Your task to perform on an android device: What's the weather? Image 0: 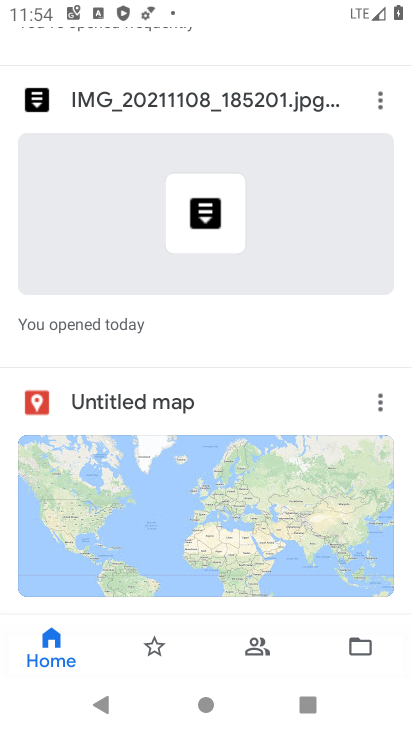
Step 0: press home button
Your task to perform on an android device: What's the weather? Image 1: 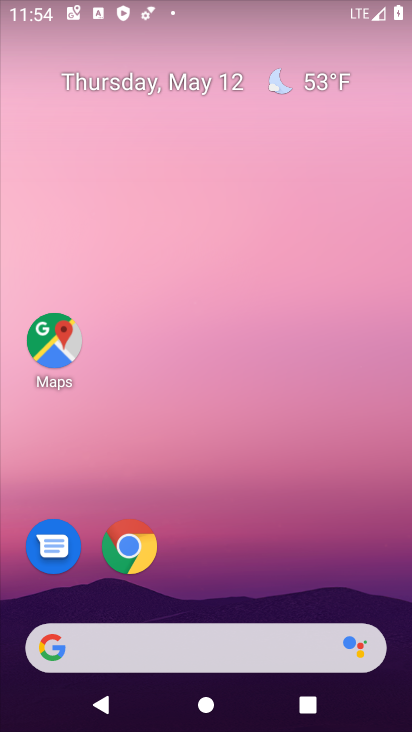
Step 1: drag from (238, 688) to (209, 253)
Your task to perform on an android device: What's the weather? Image 2: 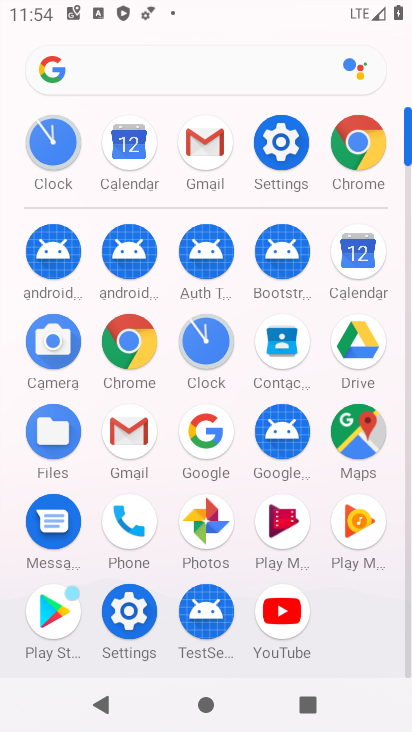
Step 2: click (145, 73)
Your task to perform on an android device: What's the weather? Image 3: 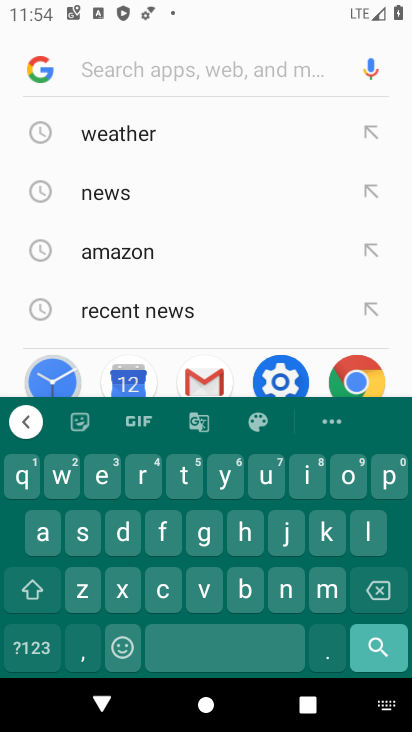
Step 3: click (120, 133)
Your task to perform on an android device: What's the weather? Image 4: 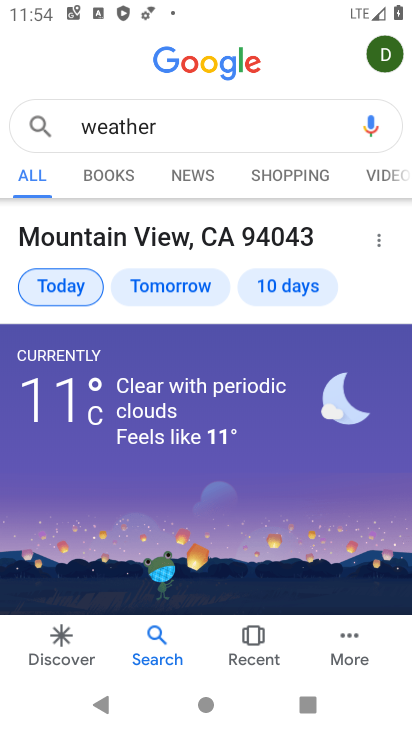
Step 4: task complete